Your task to perform on an android device: choose inbox layout in the gmail app Image 0: 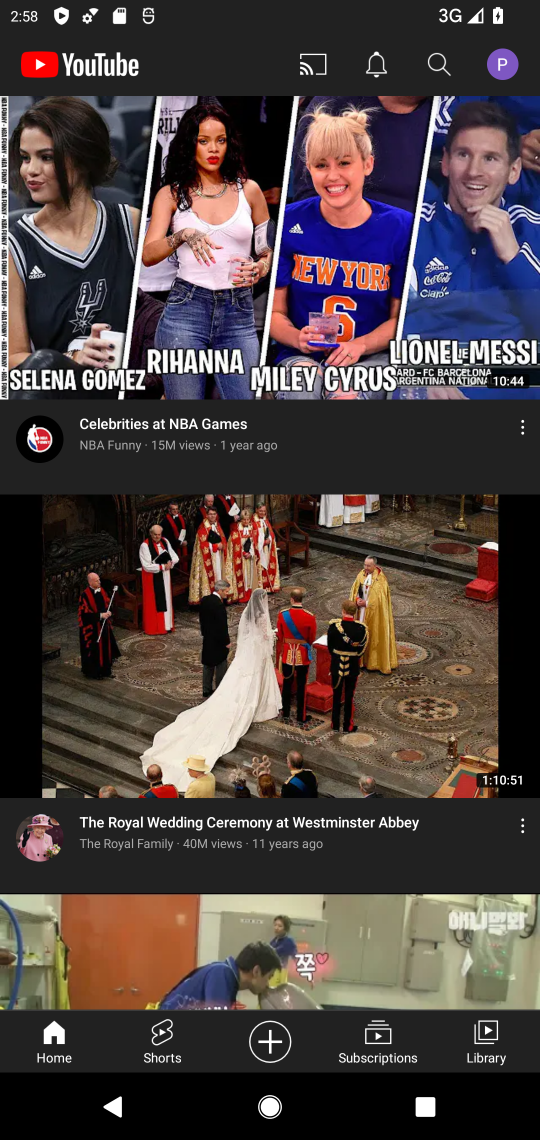
Step 0: press home button
Your task to perform on an android device: choose inbox layout in the gmail app Image 1: 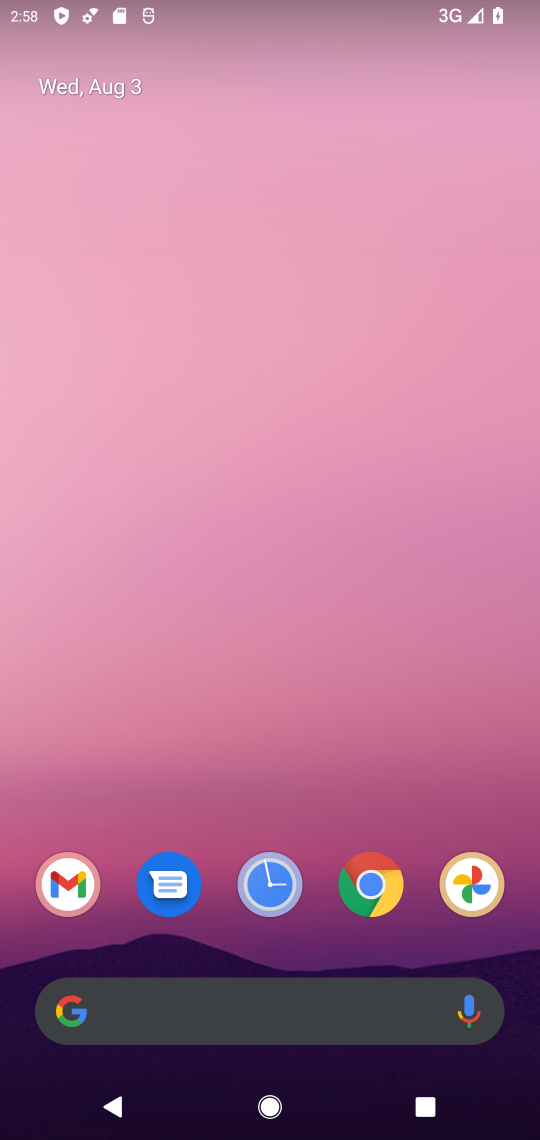
Step 1: click (83, 900)
Your task to perform on an android device: choose inbox layout in the gmail app Image 2: 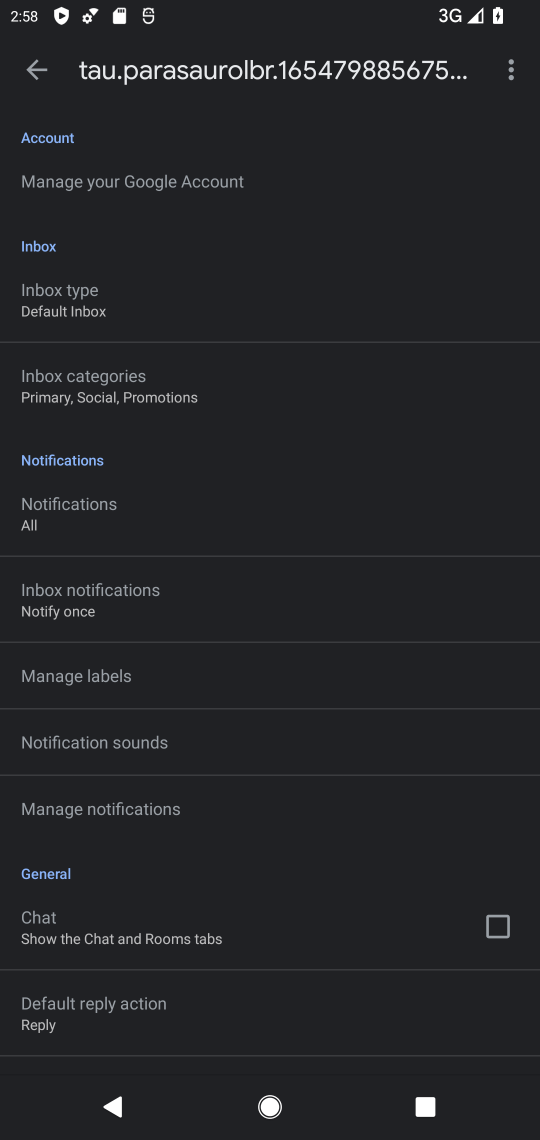
Step 2: click (142, 285)
Your task to perform on an android device: choose inbox layout in the gmail app Image 3: 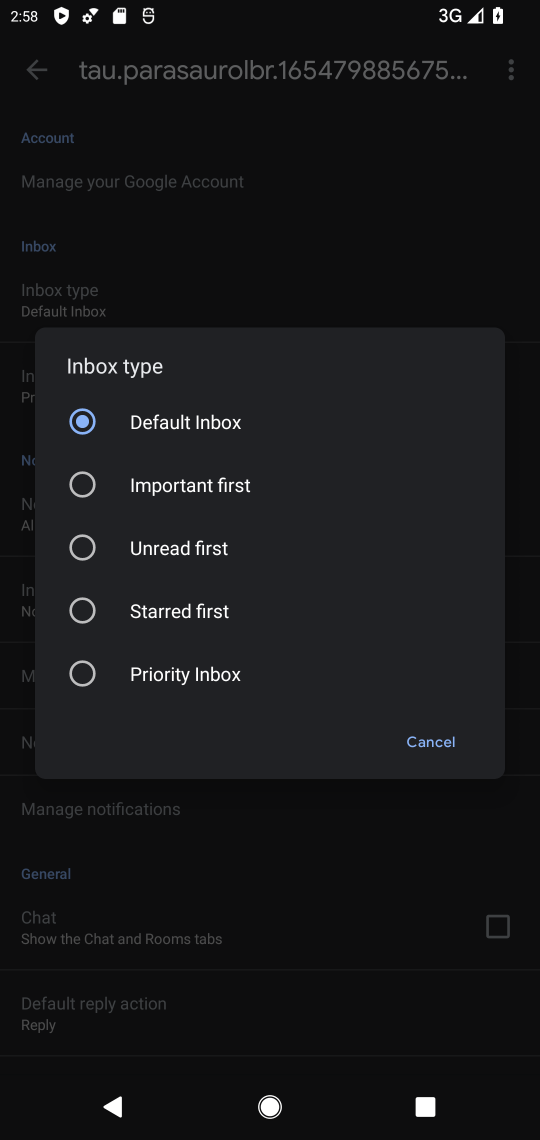
Step 3: click (103, 485)
Your task to perform on an android device: choose inbox layout in the gmail app Image 4: 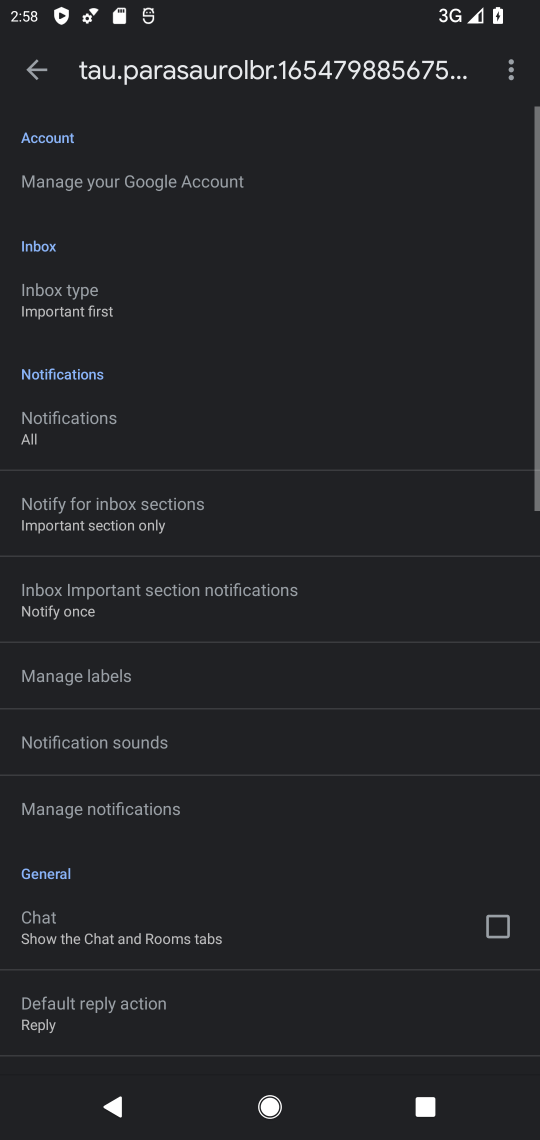
Step 4: task complete